Your task to perform on an android device: Open Maps and search for coffee Image 0: 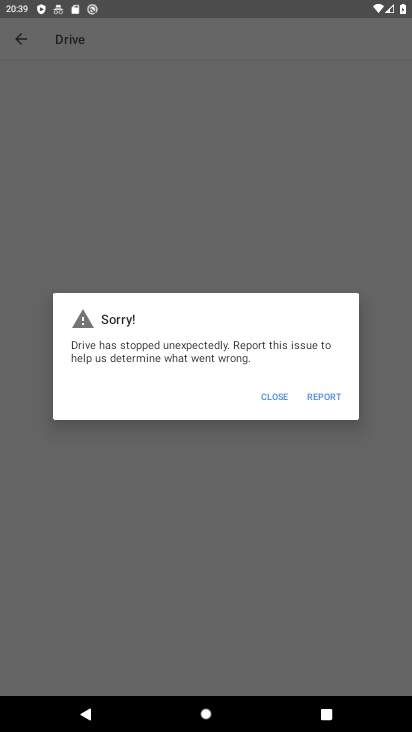
Step 0: press home button
Your task to perform on an android device: Open Maps and search for coffee Image 1: 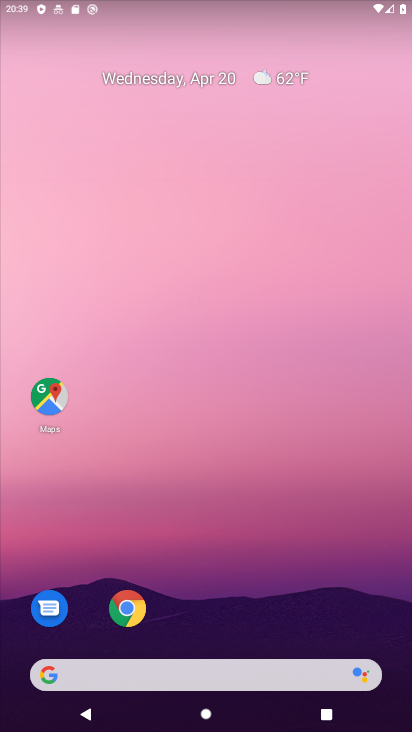
Step 1: drag from (327, 427) to (305, 12)
Your task to perform on an android device: Open Maps and search for coffee Image 2: 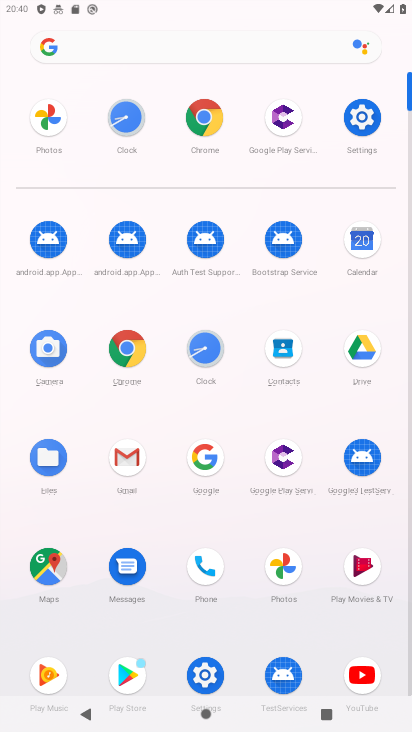
Step 2: click (50, 590)
Your task to perform on an android device: Open Maps and search for coffee Image 3: 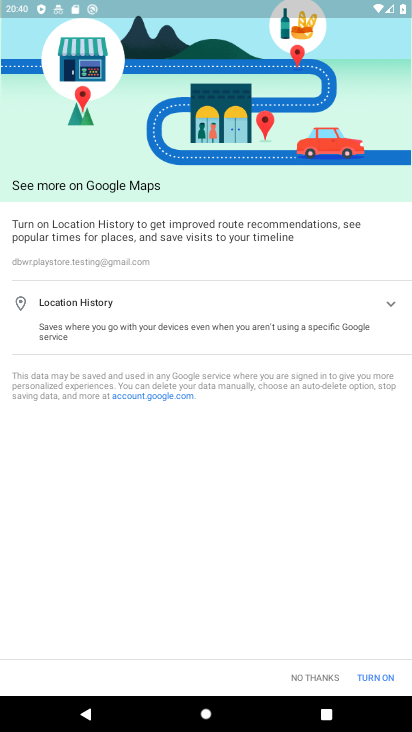
Step 3: press back button
Your task to perform on an android device: Open Maps and search for coffee Image 4: 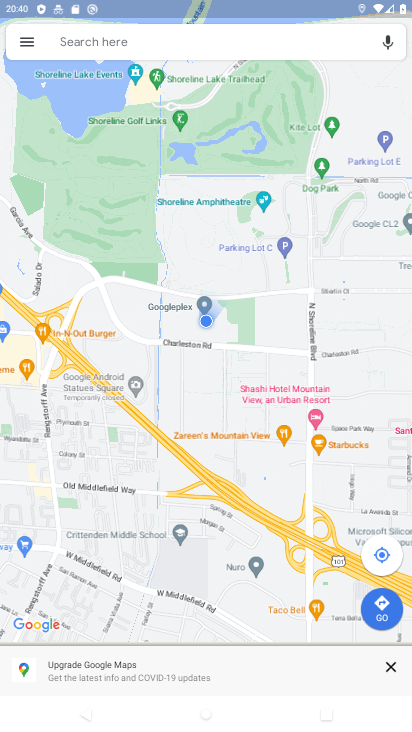
Step 4: click (63, 47)
Your task to perform on an android device: Open Maps and search for coffee Image 5: 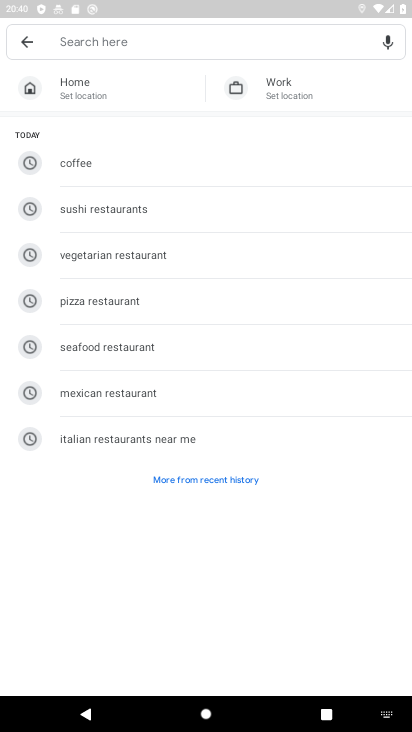
Step 5: type "coffee"
Your task to perform on an android device: Open Maps and search for coffee Image 6: 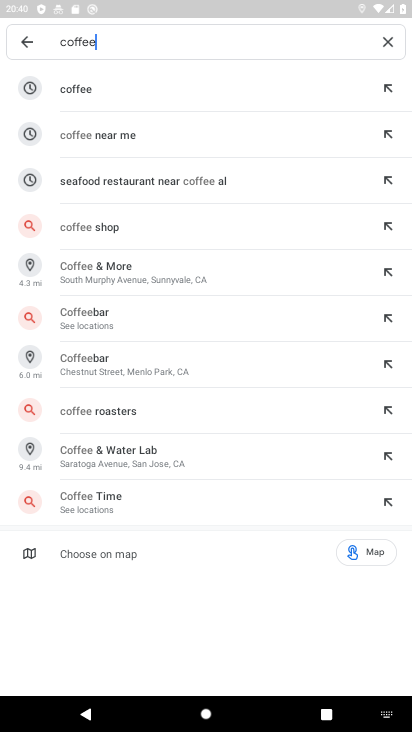
Step 6: click (54, 101)
Your task to perform on an android device: Open Maps and search for coffee Image 7: 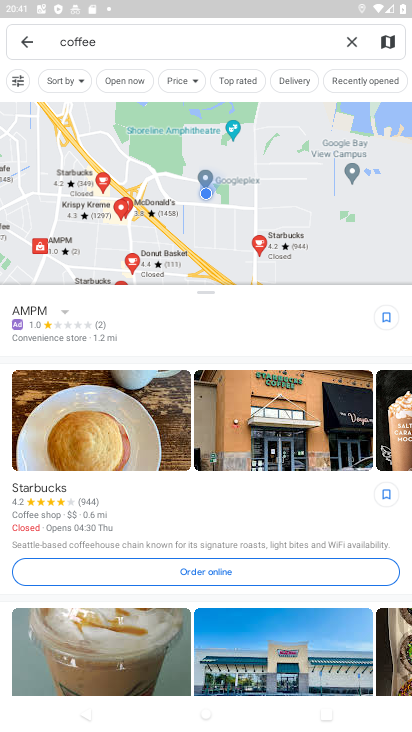
Step 7: task complete